Your task to perform on an android device: turn off location Image 0: 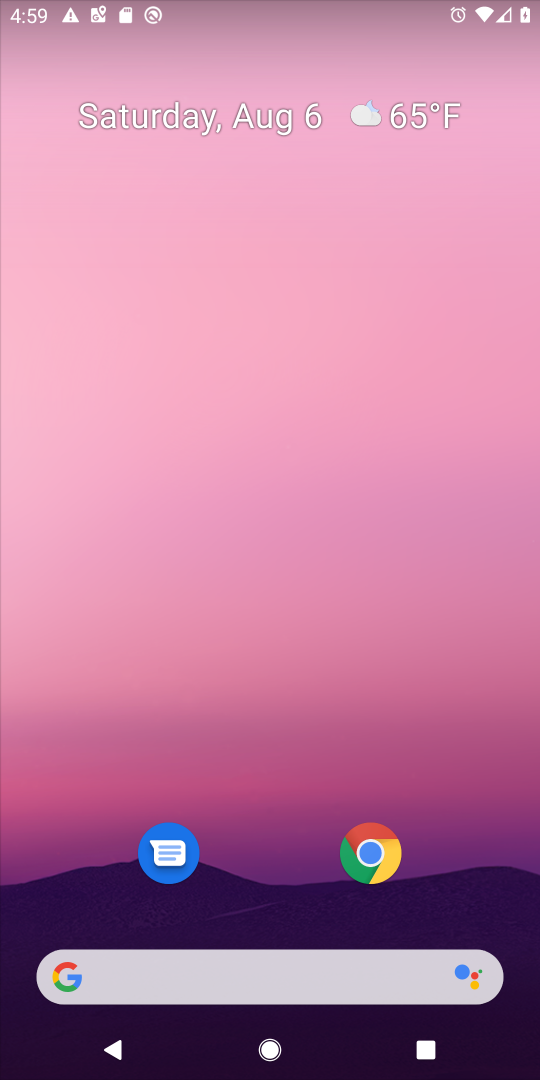
Step 0: drag from (313, 883) to (354, 168)
Your task to perform on an android device: turn off location Image 1: 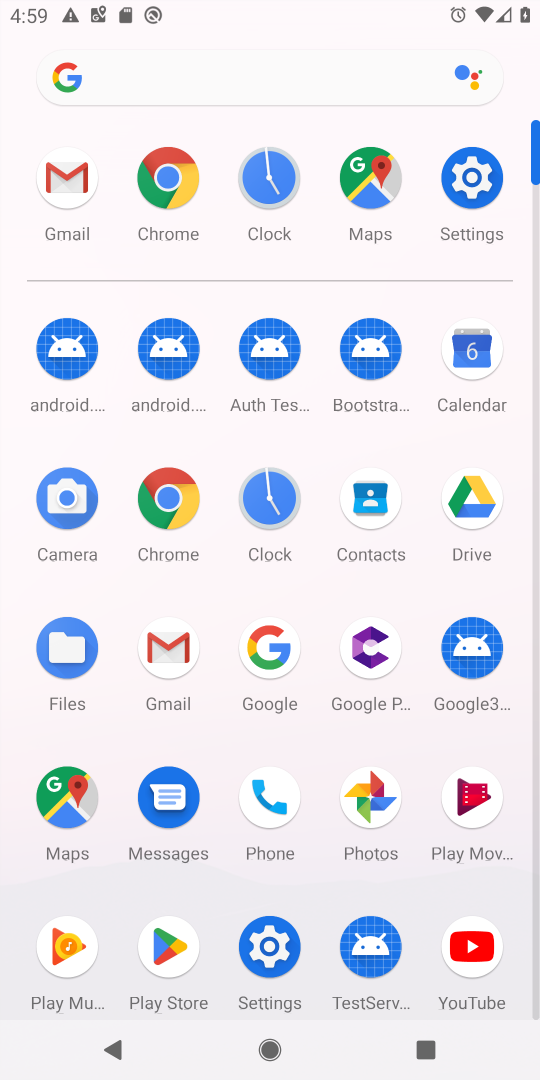
Step 1: click (474, 180)
Your task to perform on an android device: turn off location Image 2: 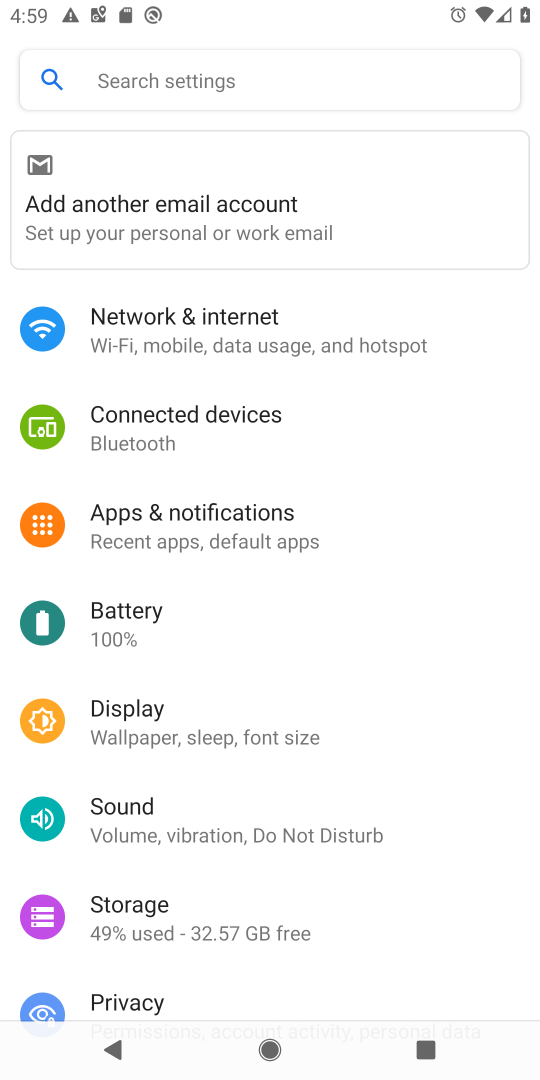
Step 2: drag from (160, 911) to (315, 160)
Your task to perform on an android device: turn off location Image 3: 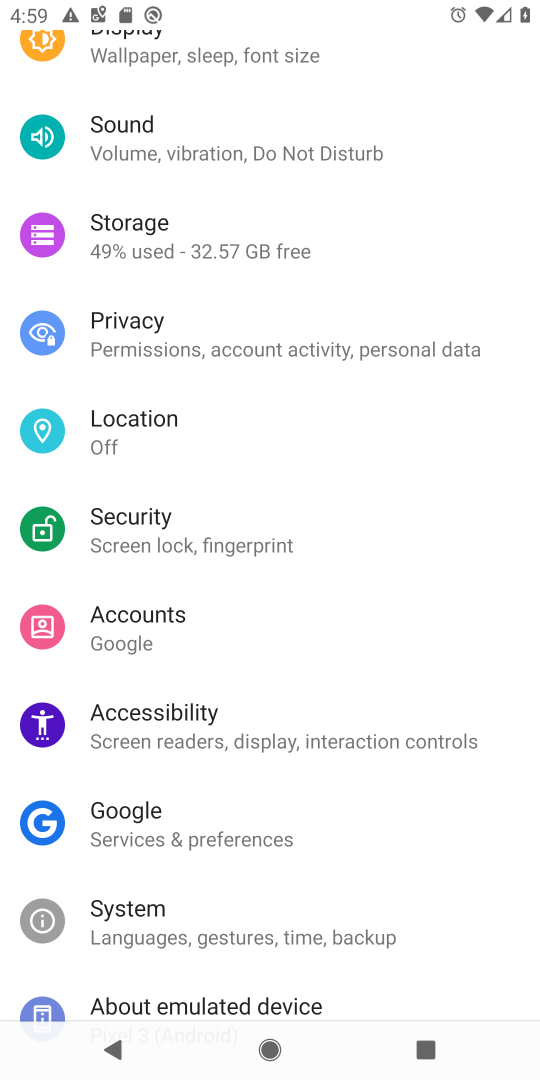
Step 3: click (158, 405)
Your task to perform on an android device: turn off location Image 4: 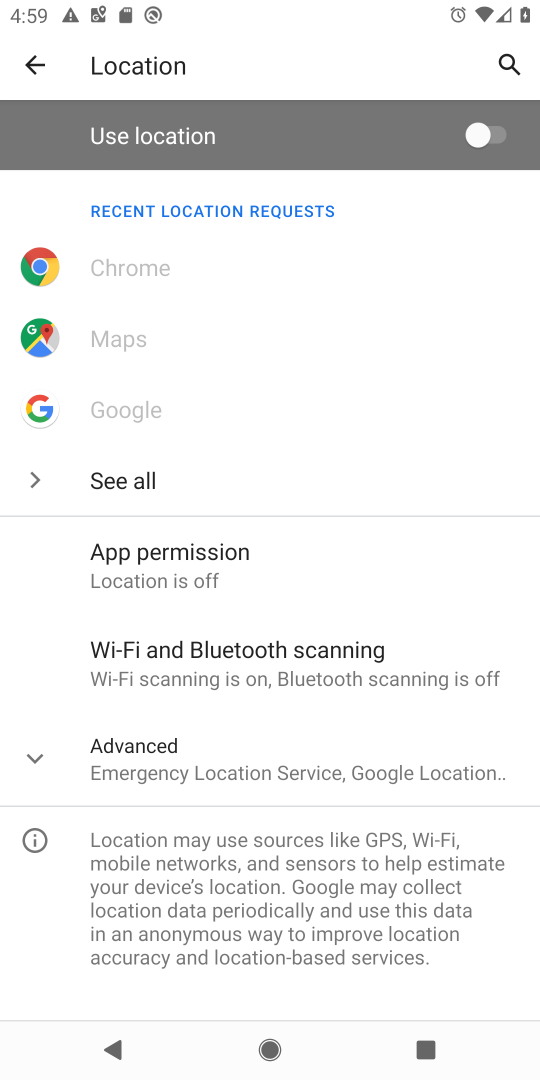
Step 4: task complete